Your task to perform on an android device: change alarm snooze length Image 0: 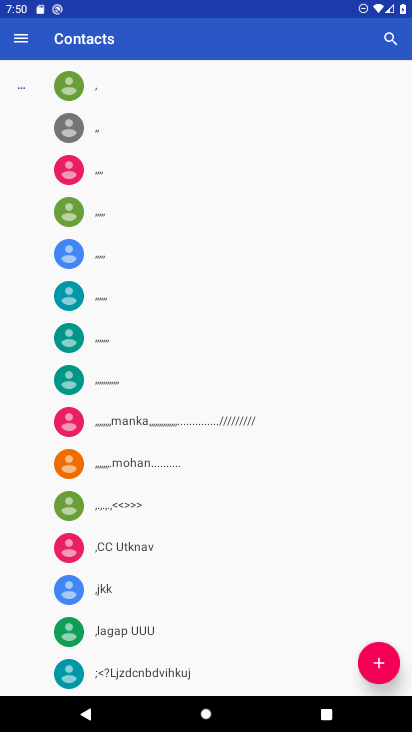
Step 0: press home button
Your task to perform on an android device: change alarm snooze length Image 1: 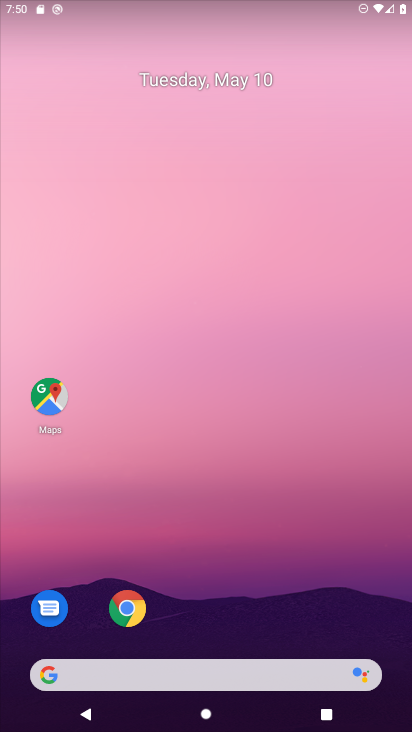
Step 1: drag from (257, 618) to (244, 309)
Your task to perform on an android device: change alarm snooze length Image 2: 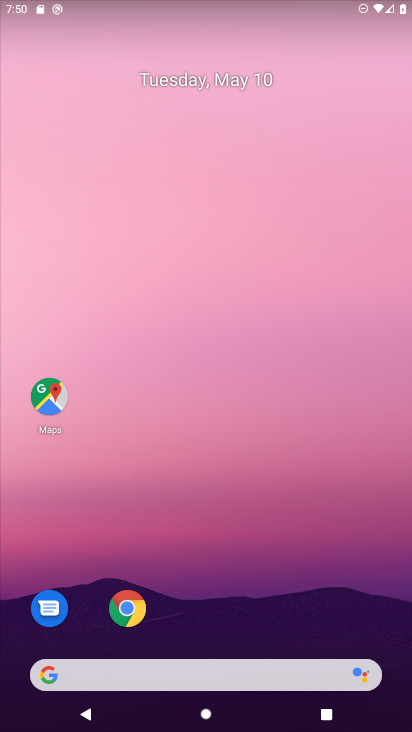
Step 2: drag from (251, 579) to (238, 348)
Your task to perform on an android device: change alarm snooze length Image 3: 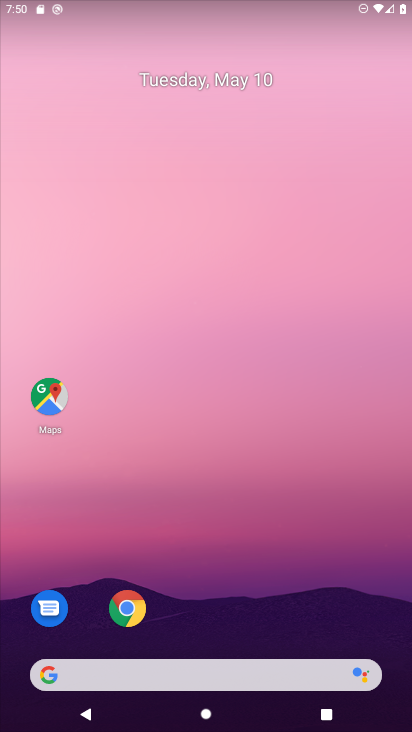
Step 3: drag from (213, 592) to (231, 329)
Your task to perform on an android device: change alarm snooze length Image 4: 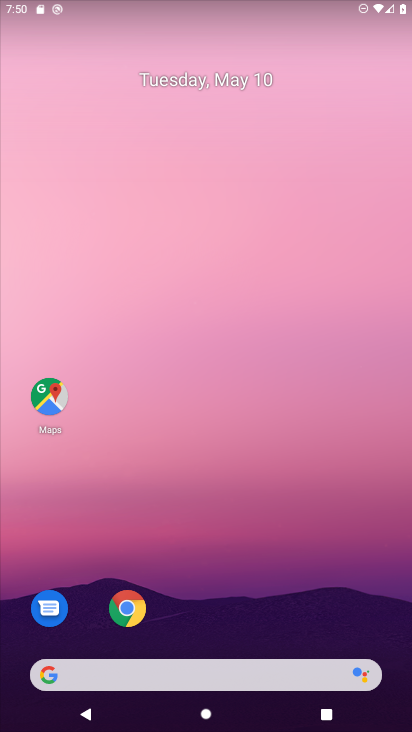
Step 4: drag from (221, 670) to (267, 319)
Your task to perform on an android device: change alarm snooze length Image 5: 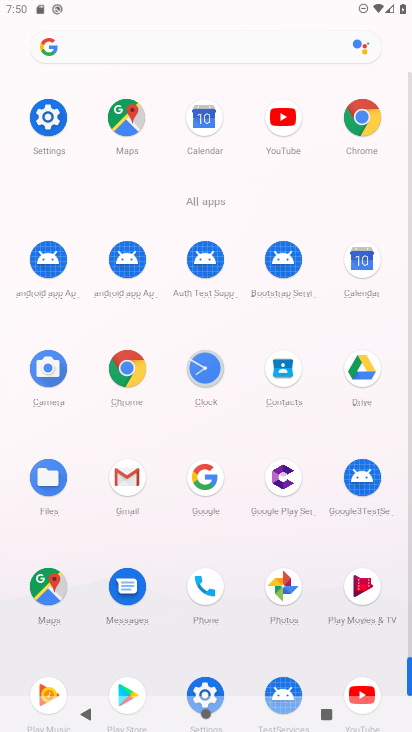
Step 5: click (192, 377)
Your task to perform on an android device: change alarm snooze length Image 6: 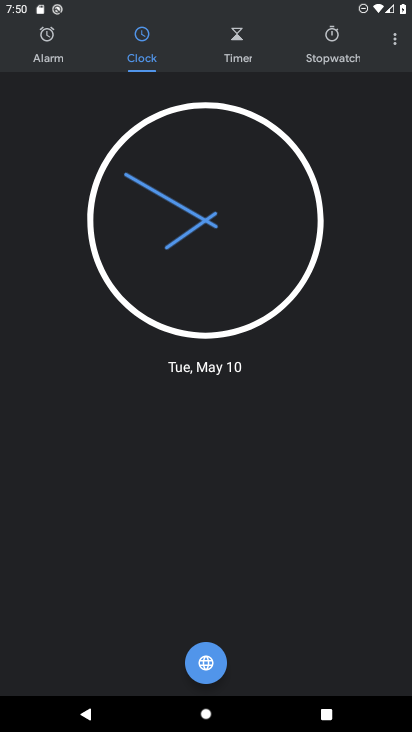
Step 6: click (385, 42)
Your task to perform on an android device: change alarm snooze length Image 7: 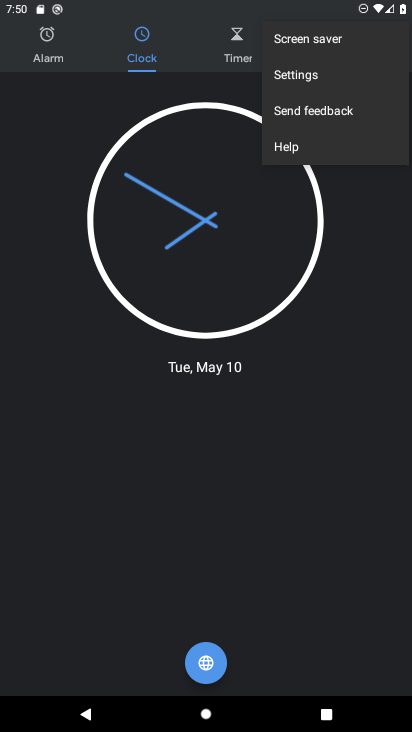
Step 7: click (312, 73)
Your task to perform on an android device: change alarm snooze length Image 8: 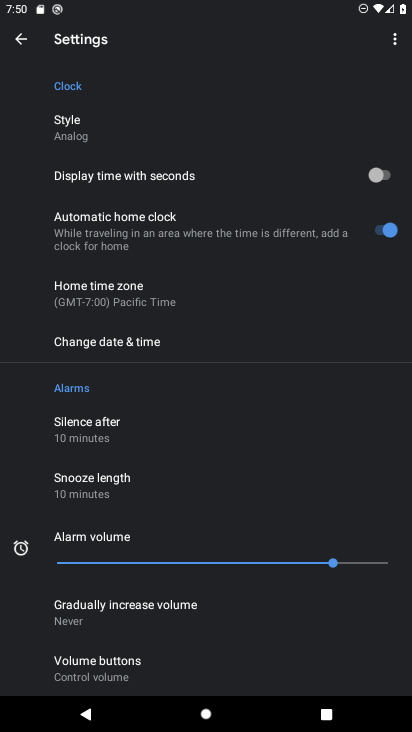
Step 8: click (134, 477)
Your task to perform on an android device: change alarm snooze length Image 9: 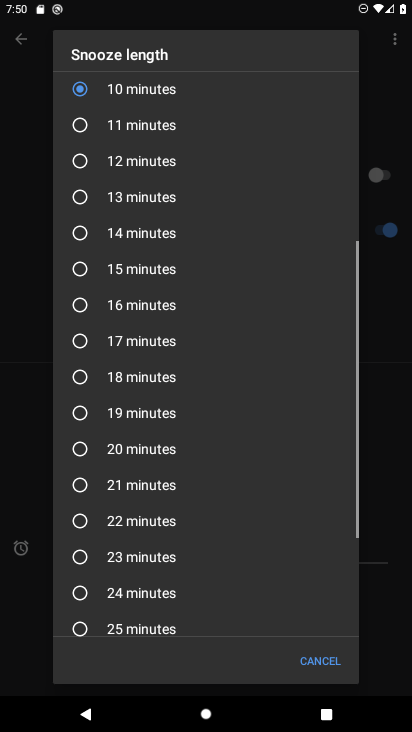
Step 9: click (150, 482)
Your task to perform on an android device: change alarm snooze length Image 10: 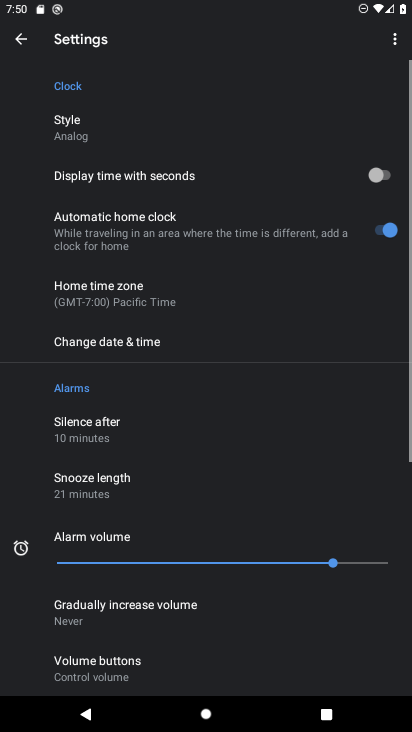
Step 10: task complete